Your task to perform on an android device: Go to eBay Image 0: 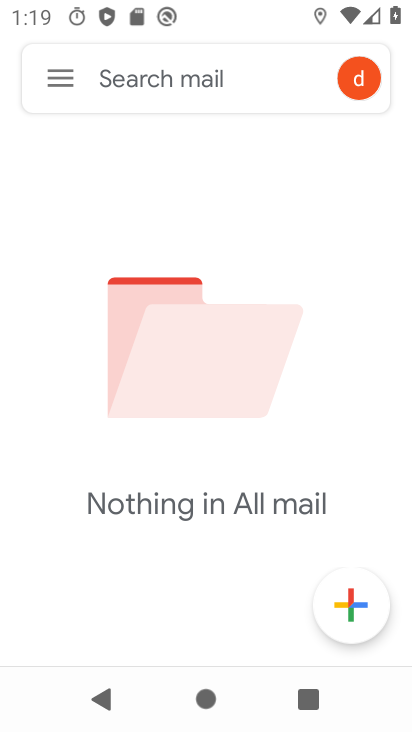
Step 0: press home button
Your task to perform on an android device: Go to eBay Image 1: 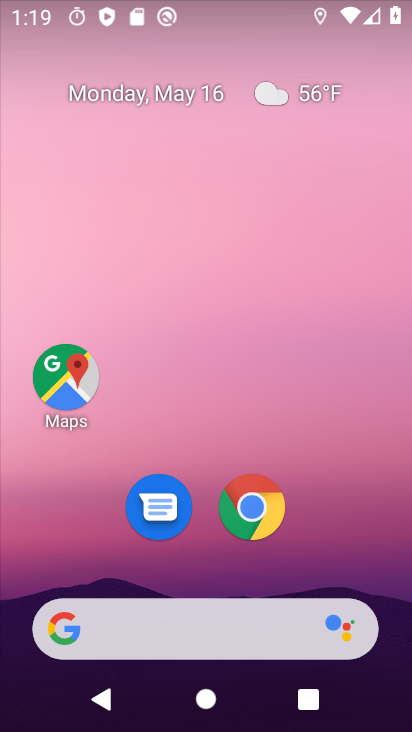
Step 1: drag from (218, 522) to (196, 103)
Your task to perform on an android device: Go to eBay Image 2: 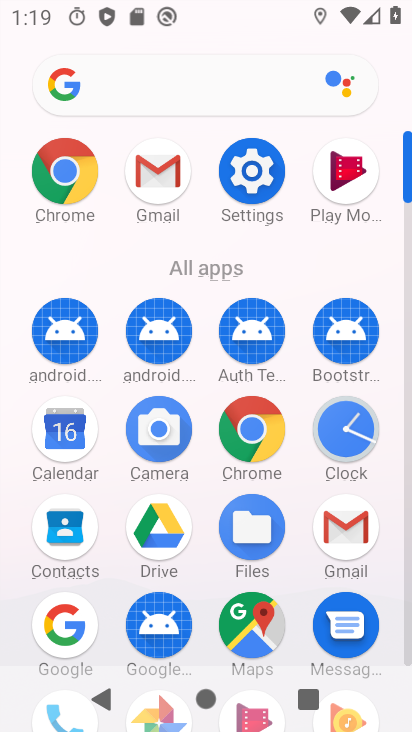
Step 2: click (70, 616)
Your task to perform on an android device: Go to eBay Image 3: 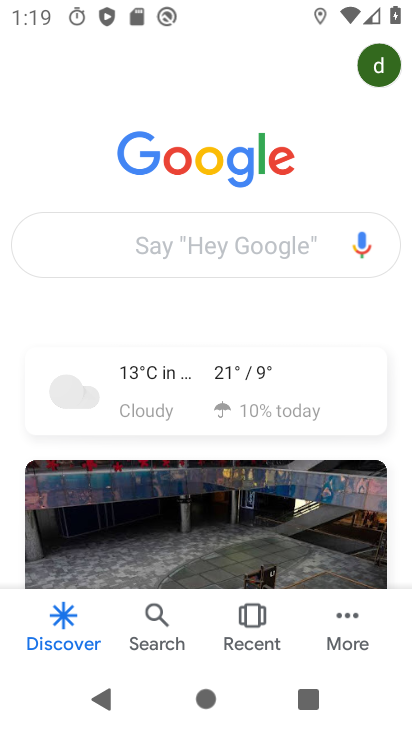
Step 3: click (199, 251)
Your task to perform on an android device: Go to eBay Image 4: 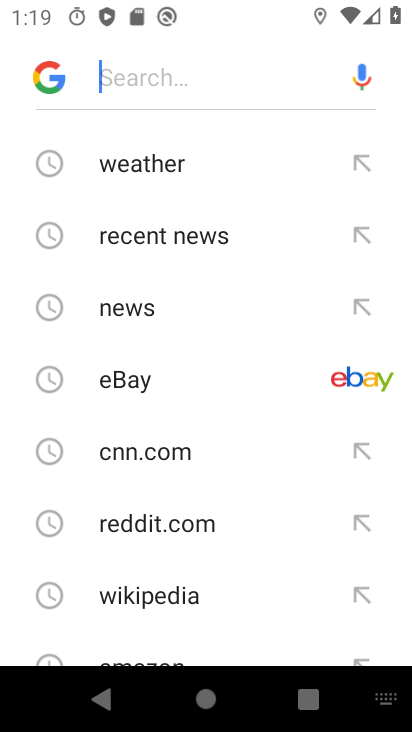
Step 4: click (175, 384)
Your task to perform on an android device: Go to eBay Image 5: 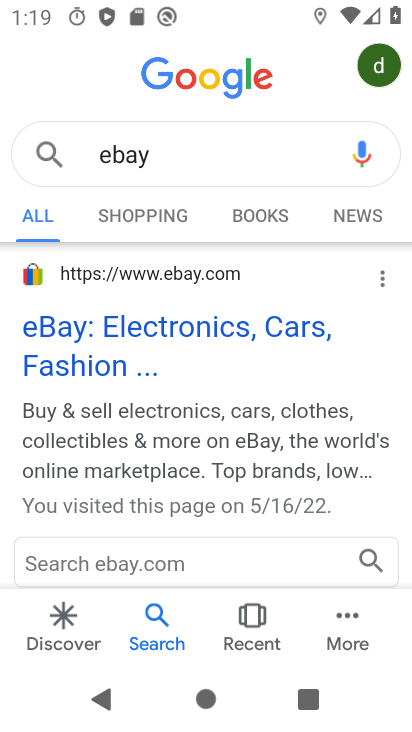
Step 5: task complete